Your task to perform on an android device: Go to privacy settings Image 0: 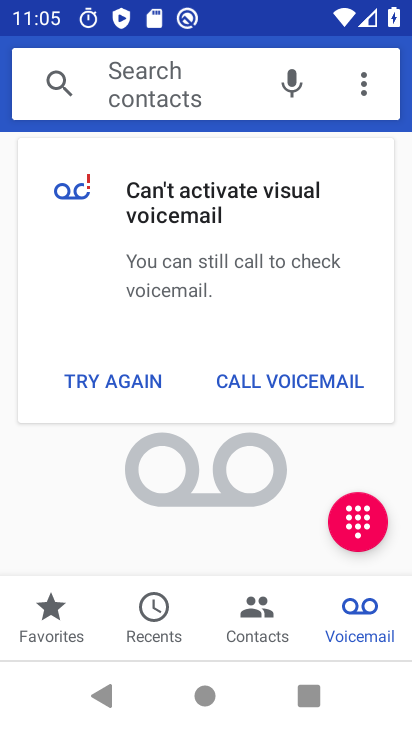
Step 0: press home button
Your task to perform on an android device: Go to privacy settings Image 1: 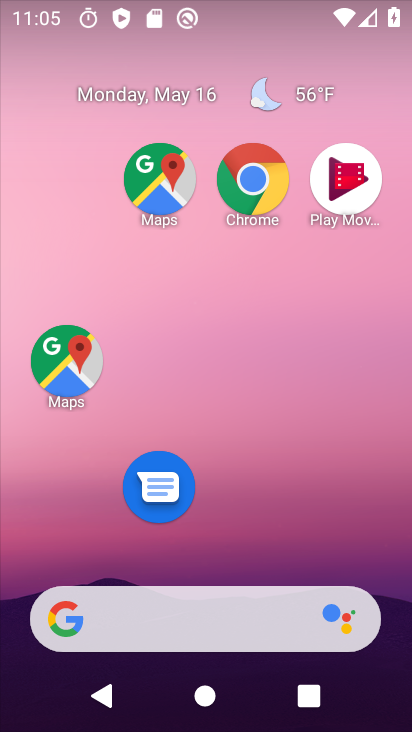
Step 1: click (230, 180)
Your task to perform on an android device: Go to privacy settings Image 2: 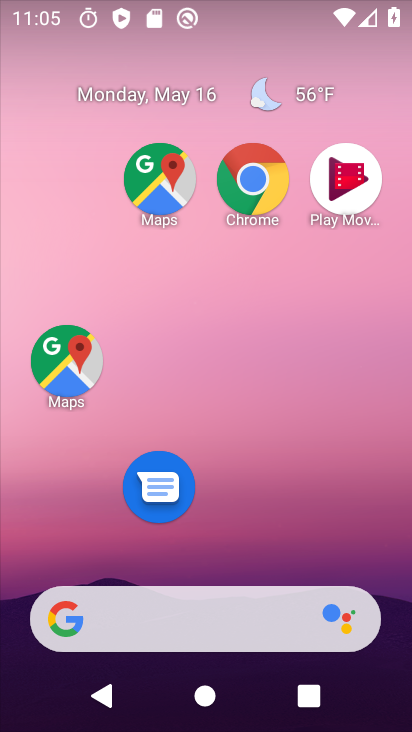
Step 2: click (251, 68)
Your task to perform on an android device: Go to privacy settings Image 3: 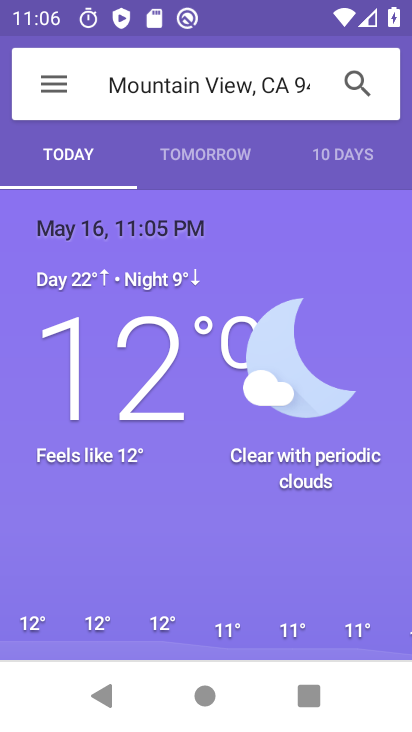
Step 3: press home button
Your task to perform on an android device: Go to privacy settings Image 4: 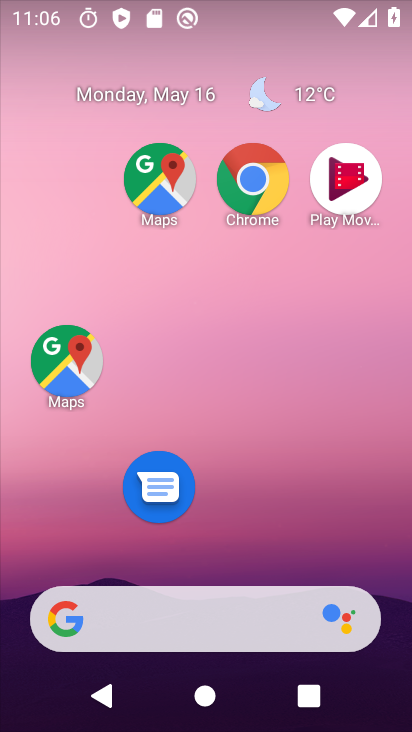
Step 4: click (253, 61)
Your task to perform on an android device: Go to privacy settings Image 5: 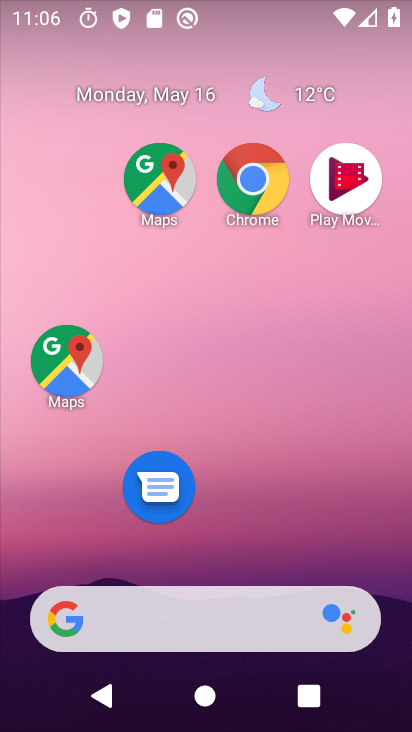
Step 5: drag from (224, 537) to (246, 82)
Your task to perform on an android device: Go to privacy settings Image 6: 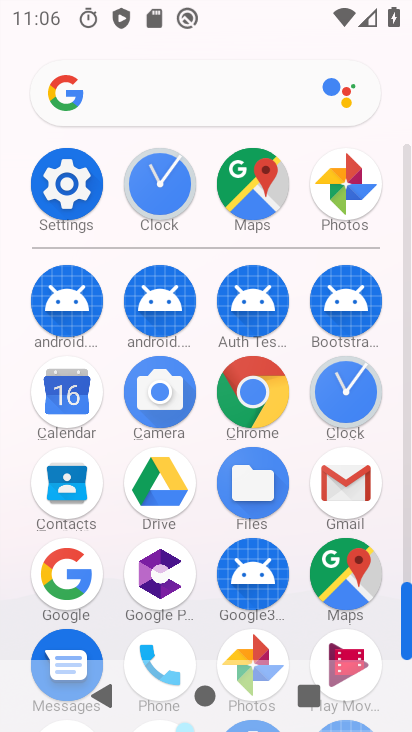
Step 6: click (72, 197)
Your task to perform on an android device: Go to privacy settings Image 7: 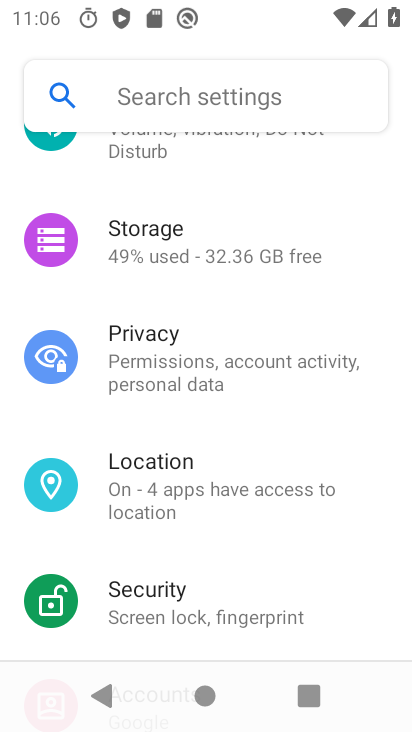
Step 7: click (160, 376)
Your task to perform on an android device: Go to privacy settings Image 8: 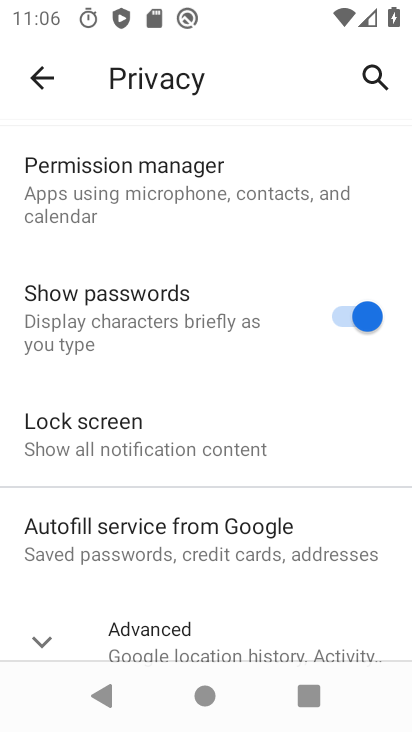
Step 8: task complete